Your task to perform on an android device: turn notification dots on Image 0: 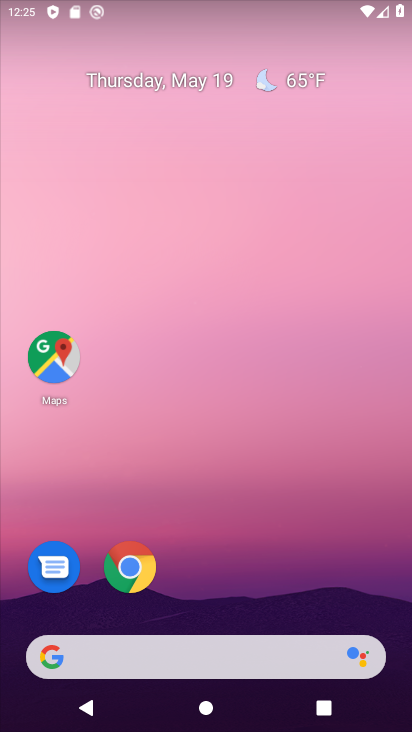
Step 0: drag from (276, 594) to (252, 86)
Your task to perform on an android device: turn notification dots on Image 1: 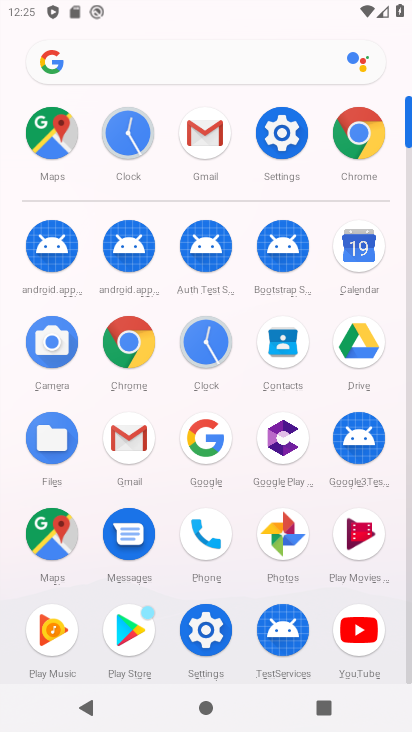
Step 1: click (275, 131)
Your task to perform on an android device: turn notification dots on Image 2: 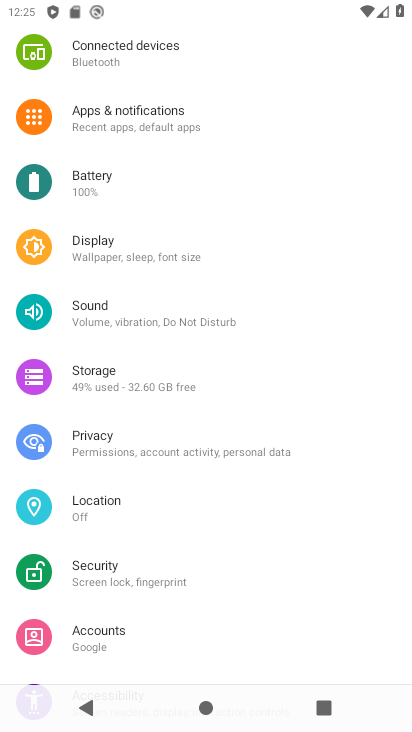
Step 2: click (179, 126)
Your task to perform on an android device: turn notification dots on Image 3: 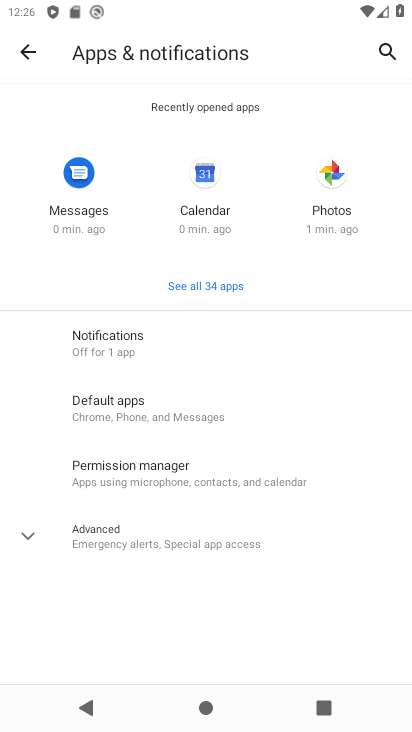
Step 3: click (164, 541)
Your task to perform on an android device: turn notification dots on Image 4: 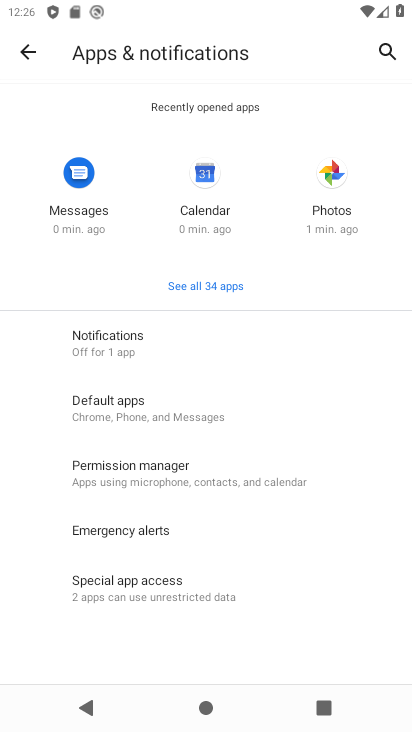
Step 4: click (180, 352)
Your task to perform on an android device: turn notification dots on Image 5: 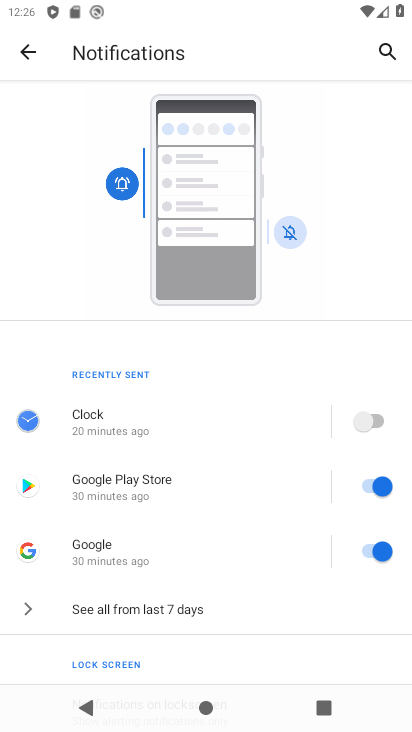
Step 5: drag from (240, 654) to (238, 228)
Your task to perform on an android device: turn notification dots on Image 6: 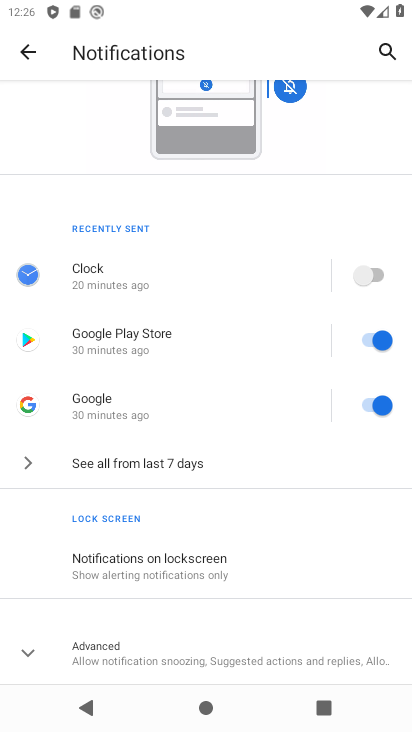
Step 6: click (245, 663)
Your task to perform on an android device: turn notification dots on Image 7: 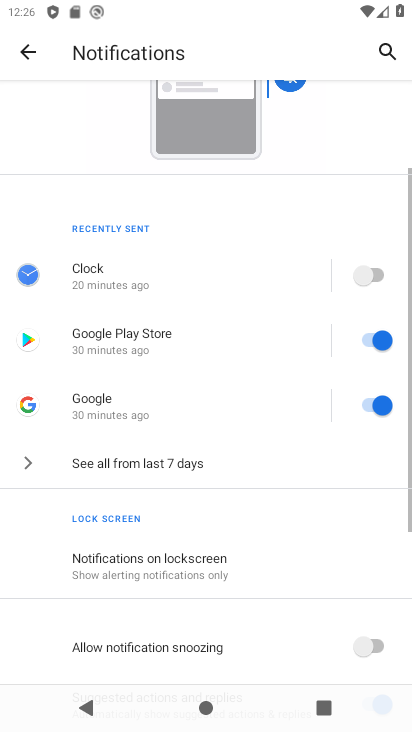
Step 7: task complete